Your task to perform on an android device: delete browsing data in the chrome app Image 0: 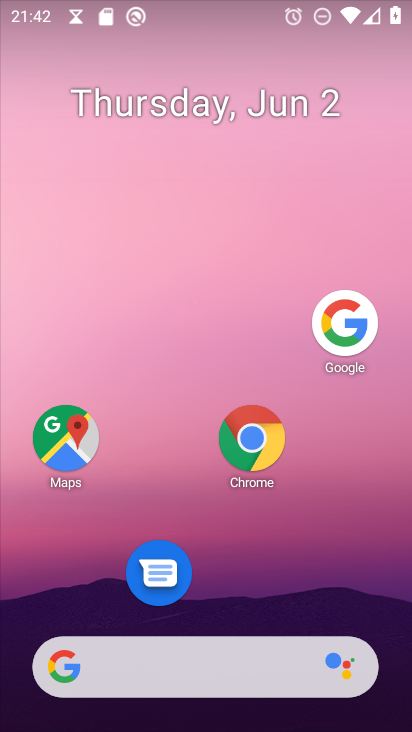
Step 0: press home button
Your task to perform on an android device: delete browsing data in the chrome app Image 1: 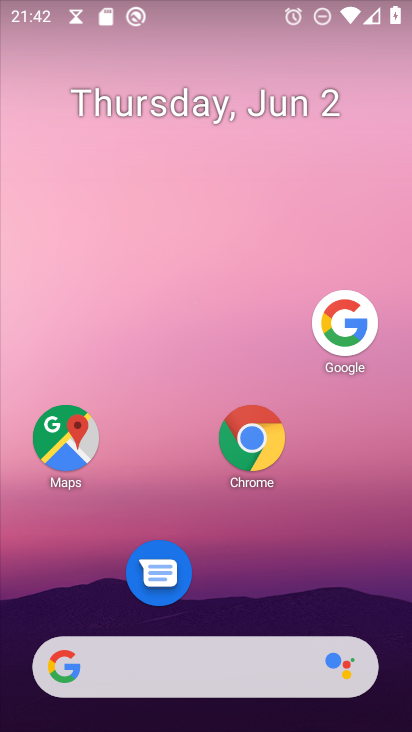
Step 1: click (261, 452)
Your task to perform on an android device: delete browsing data in the chrome app Image 2: 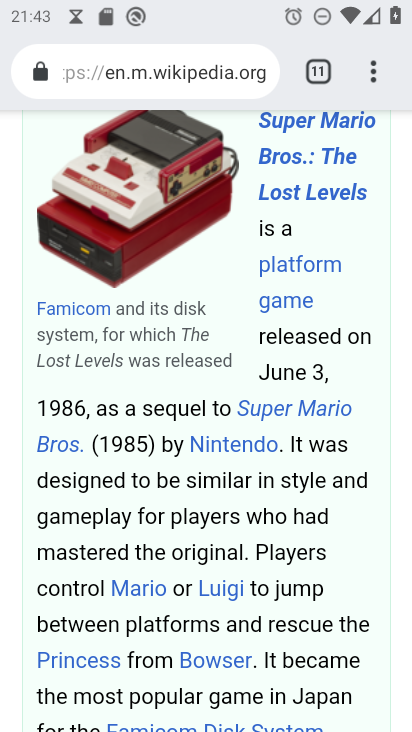
Step 2: drag from (369, 71) to (171, 580)
Your task to perform on an android device: delete browsing data in the chrome app Image 3: 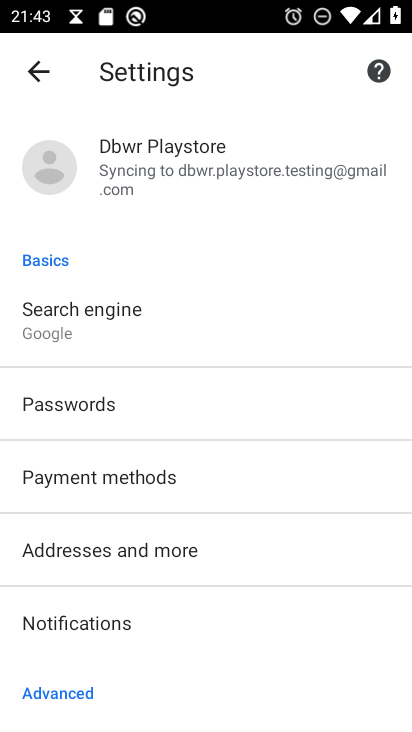
Step 3: drag from (239, 438) to (289, 210)
Your task to perform on an android device: delete browsing data in the chrome app Image 4: 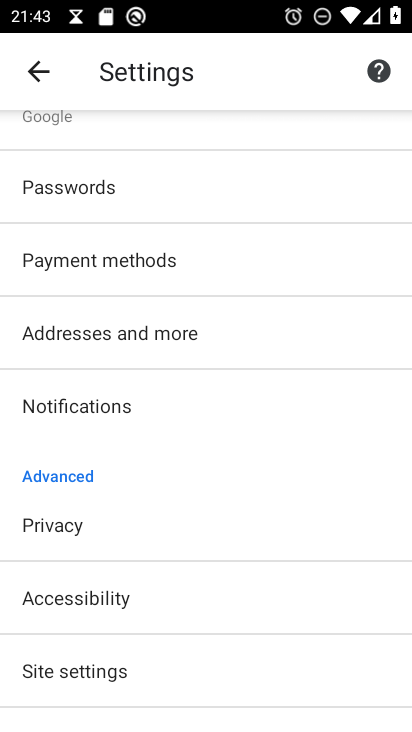
Step 4: click (41, 529)
Your task to perform on an android device: delete browsing data in the chrome app Image 5: 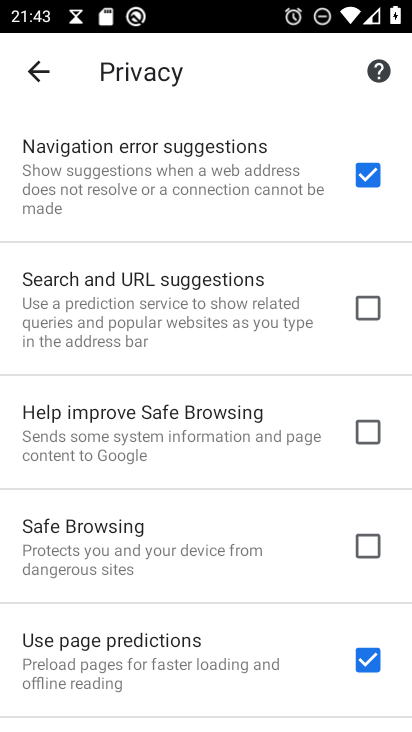
Step 5: drag from (209, 618) to (329, 95)
Your task to perform on an android device: delete browsing data in the chrome app Image 6: 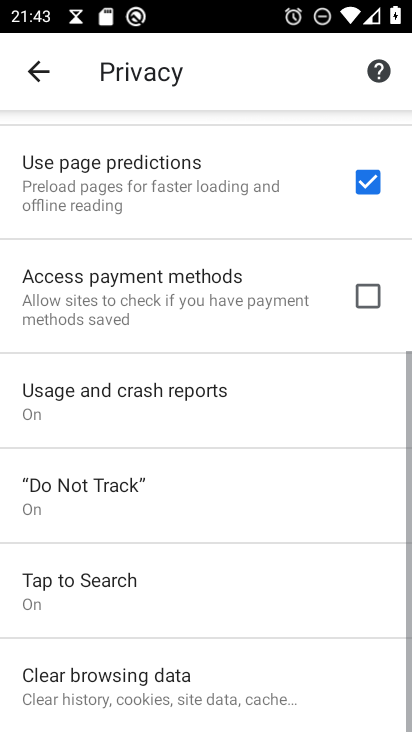
Step 6: click (148, 671)
Your task to perform on an android device: delete browsing data in the chrome app Image 7: 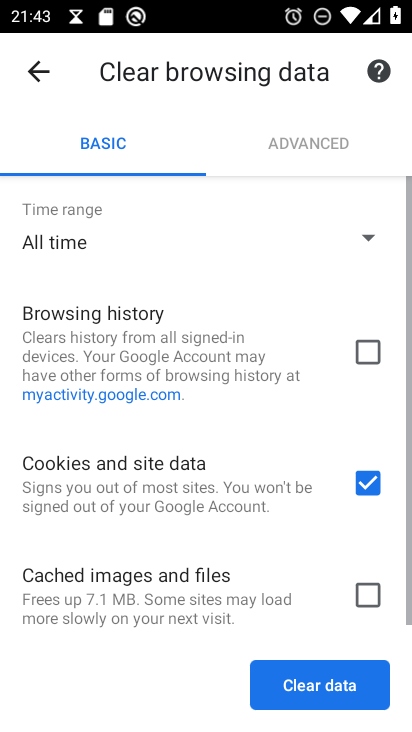
Step 7: click (370, 351)
Your task to perform on an android device: delete browsing data in the chrome app Image 8: 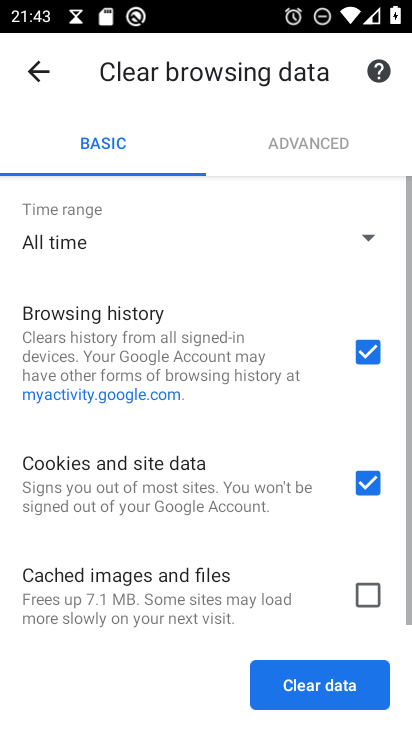
Step 8: click (365, 584)
Your task to perform on an android device: delete browsing data in the chrome app Image 9: 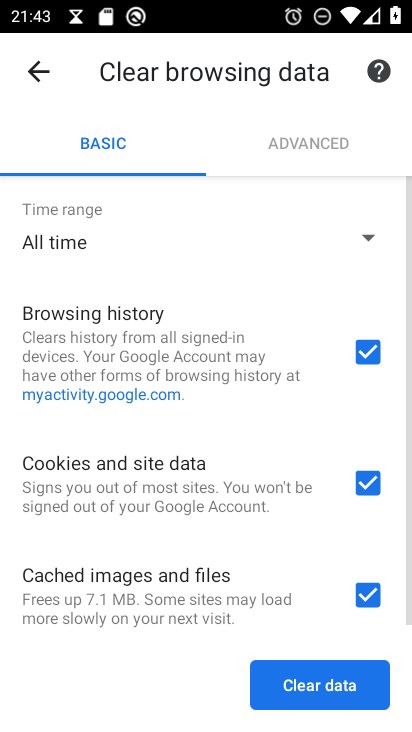
Step 9: click (293, 680)
Your task to perform on an android device: delete browsing data in the chrome app Image 10: 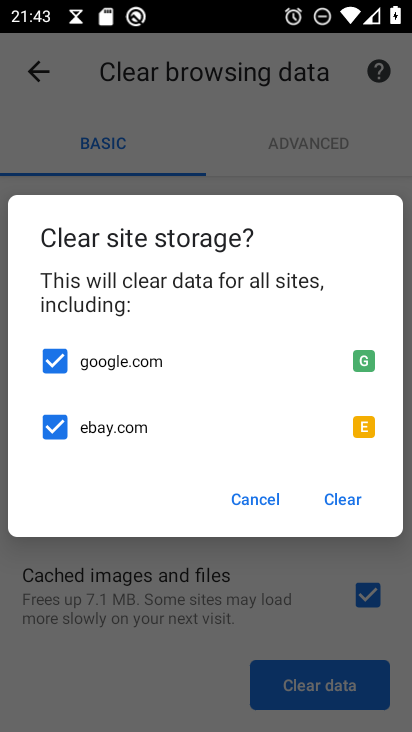
Step 10: click (342, 491)
Your task to perform on an android device: delete browsing data in the chrome app Image 11: 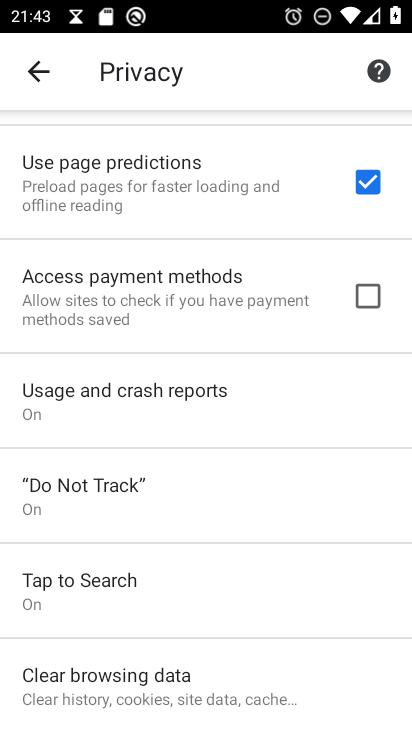
Step 11: task complete